Your task to perform on an android device: turn on bluetooth scan Image 0: 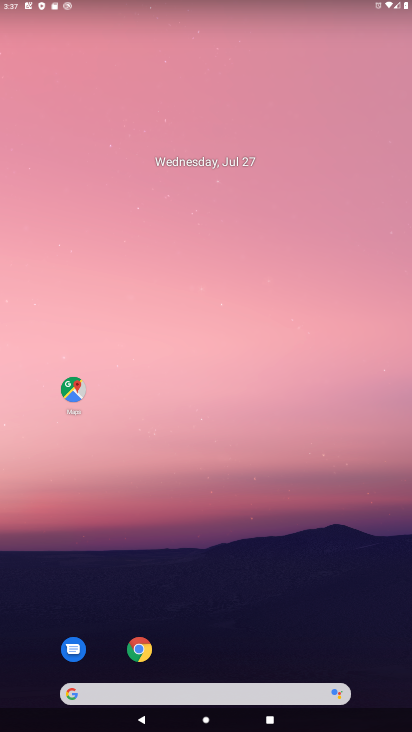
Step 0: drag from (355, 655) to (343, 200)
Your task to perform on an android device: turn on bluetooth scan Image 1: 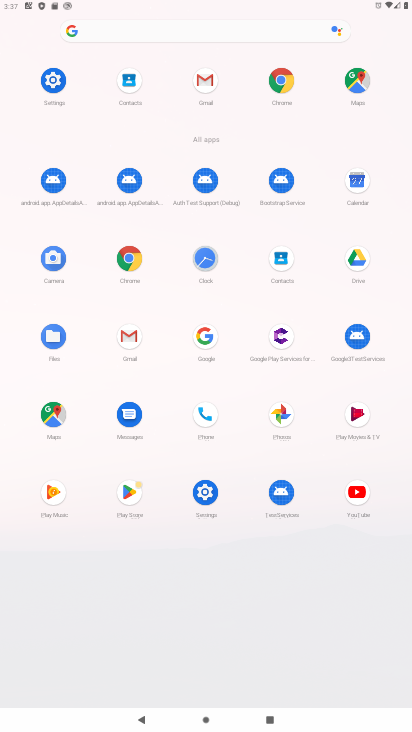
Step 1: click (204, 493)
Your task to perform on an android device: turn on bluetooth scan Image 2: 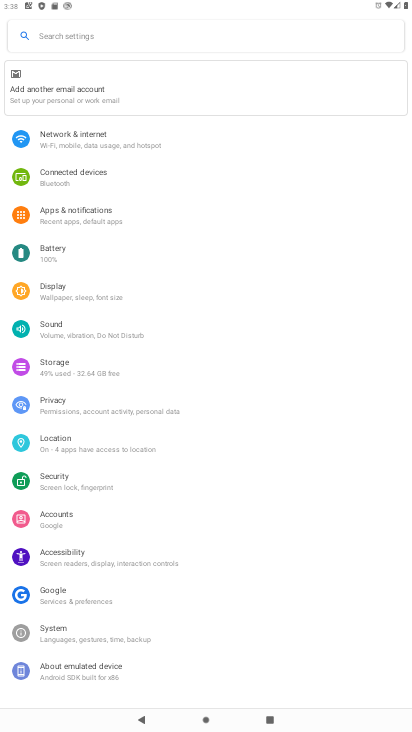
Step 2: click (57, 443)
Your task to perform on an android device: turn on bluetooth scan Image 3: 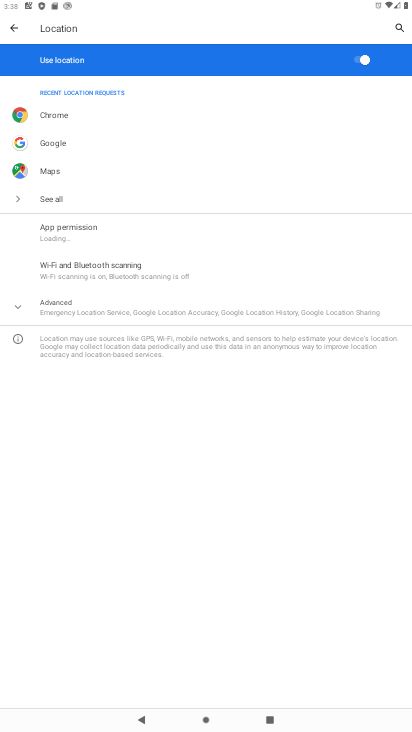
Step 3: click (85, 264)
Your task to perform on an android device: turn on bluetooth scan Image 4: 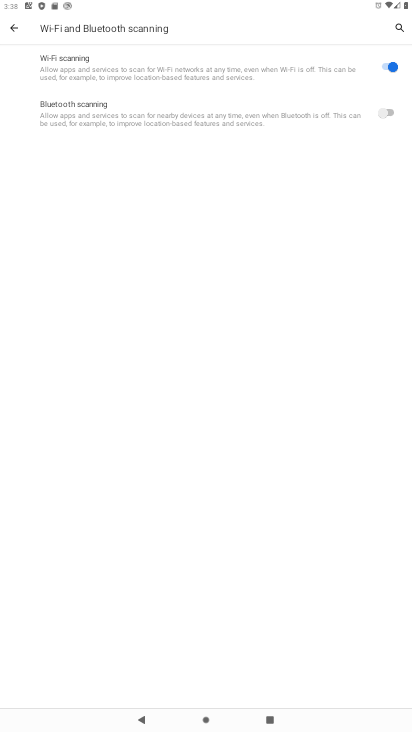
Step 4: click (390, 112)
Your task to perform on an android device: turn on bluetooth scan Image 5: 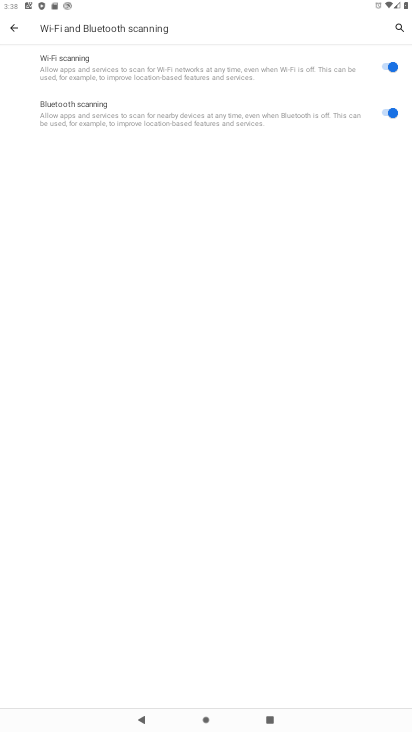
Step 5: task complete